Your task to perform on an android device: turn off airplane mode Image 0: 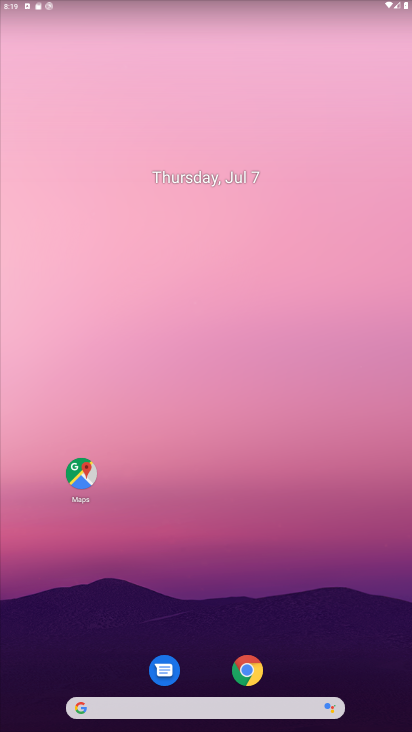
Step 0: drag from (307, 28) to (296, 581)
Your task to perform on an android device: turn off airplane mode Image 1: 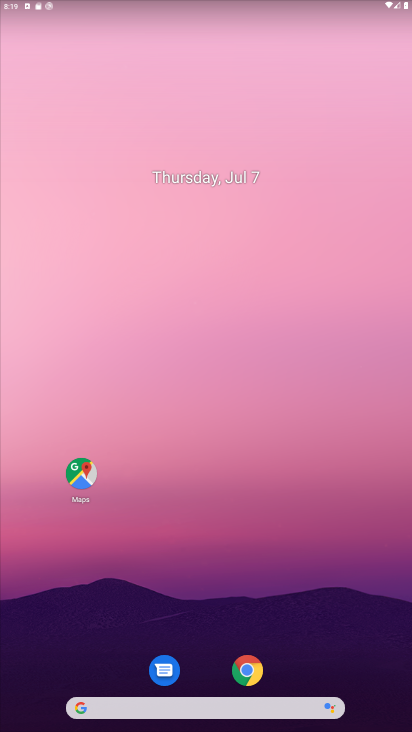
Step 1: task complete